Your task to perform on an android device: Open Google Maps Image 0: 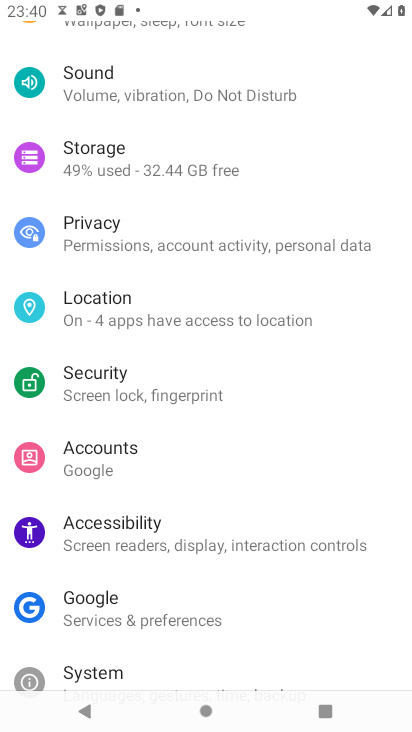
Step 0: press home button
Your task to perform on an android device: Open Google Maps Image 1: 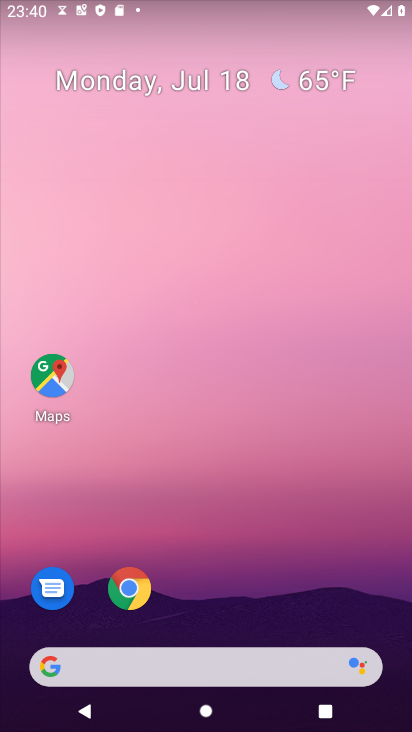
Step 1: click (58, 377)
Your task to perform on an android device: Open Google Maps Image 2: 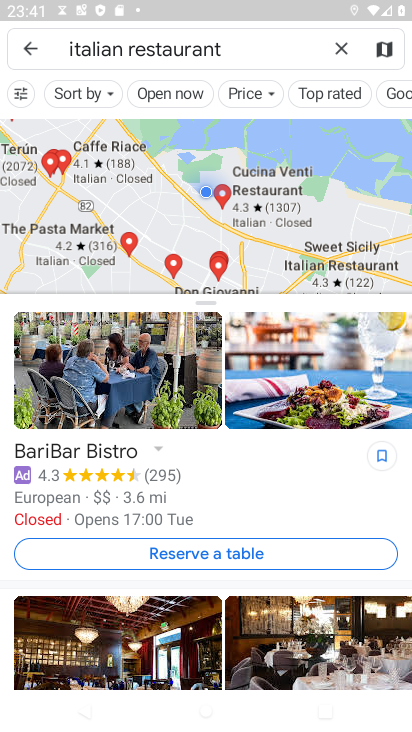
Step 2: click (30, 43)
Your task to perform on an android device: Open Google Maps Image 3: 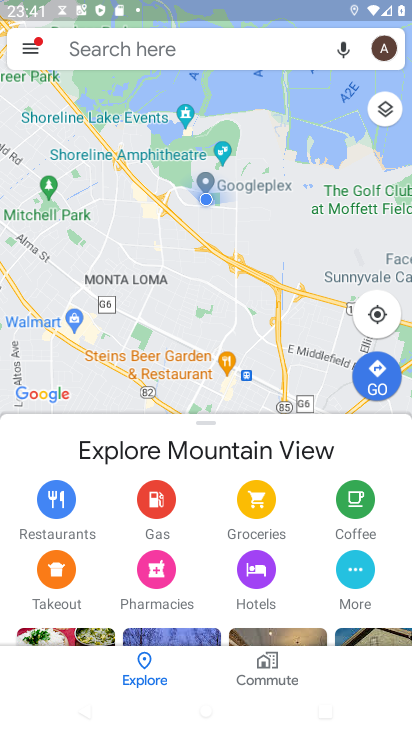
Step 3: task complete